Your task to perform on an android device: toggle data saver in the chrome app Image 0: 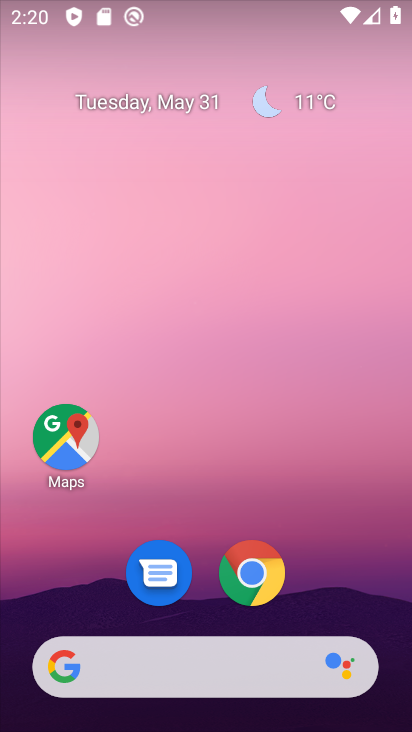
Step 0: click (251, 582)
Your task to perform on an android device: toggle data saver in the chrome app Image 1: 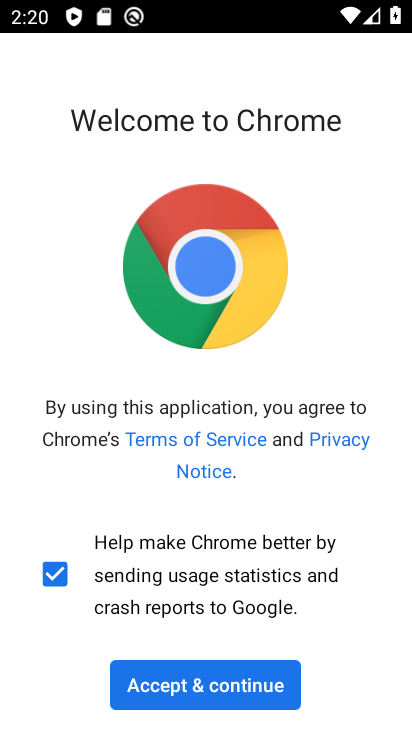
Step 1: click (253, 681)
Your task to perform on an android device: toggle data saver in the chrome app Image 2: 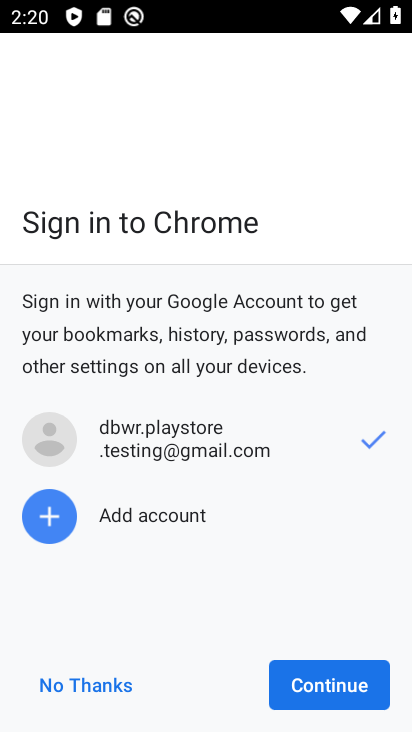
Step 2: click (297, 680)
Your task to perform on an android device: toggle data saver in the chrome app Image 3: 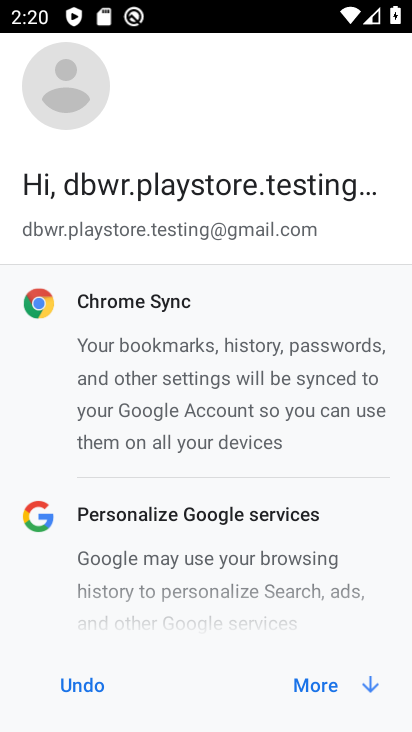
Step 3: click (297, 680)
Your task to perform on an android device: toggle data saver in the chrome app Image 4: 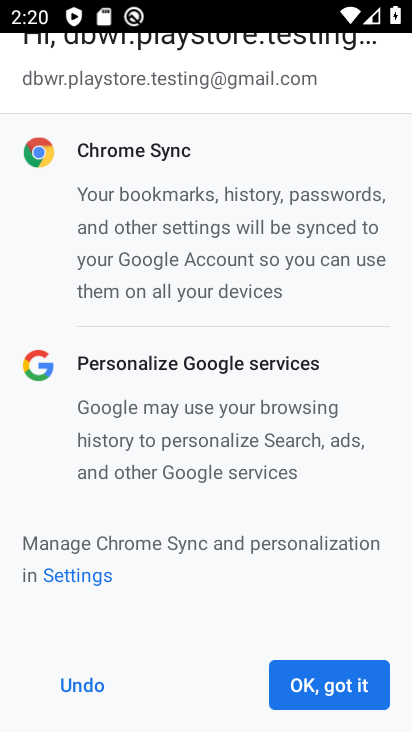
Step 4: click (297, 680)
Your task to perform on an android device: toggle data saver in the chrome app Image 5: 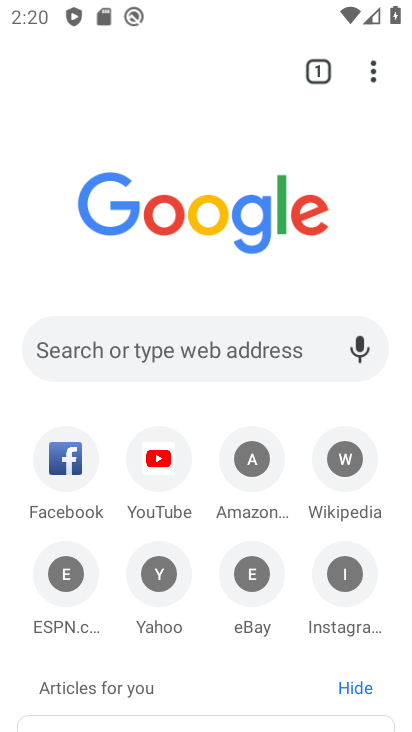
Step 5: click (377, 73)
Your task to perform on an android device: toggle data saver in the chrome app Image 6: 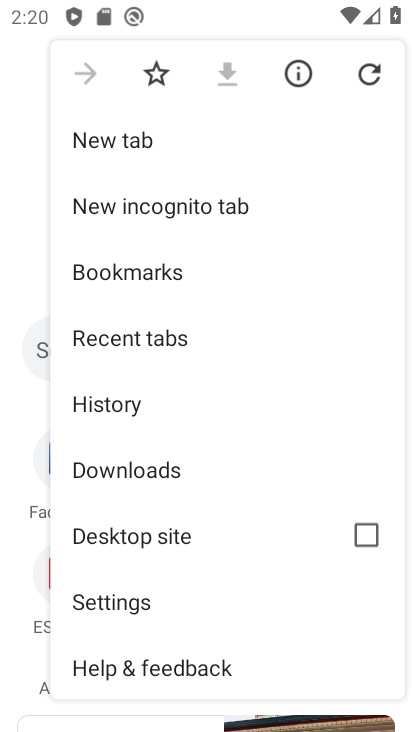
Step 6: click (166, 601)
Your task to perform on an android device: toggle data saver in the chrome app Image 7: 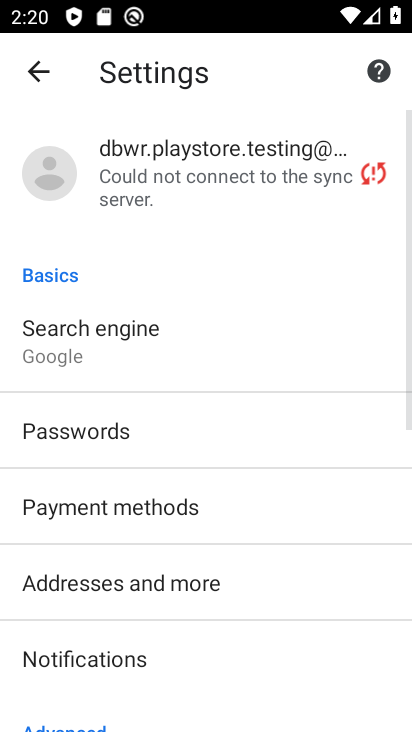
Step 7: drag from (195, 665) to (186, 101)
Your task to perform on an android device: toggle data saver in the chrome app Image 8: 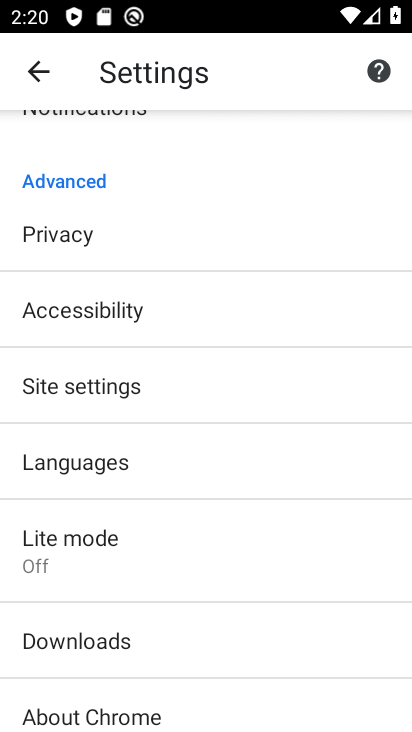
Step 8: click (167, 544)
Your task to perform on an android device: toggle data saver in the chrome app Image 9: 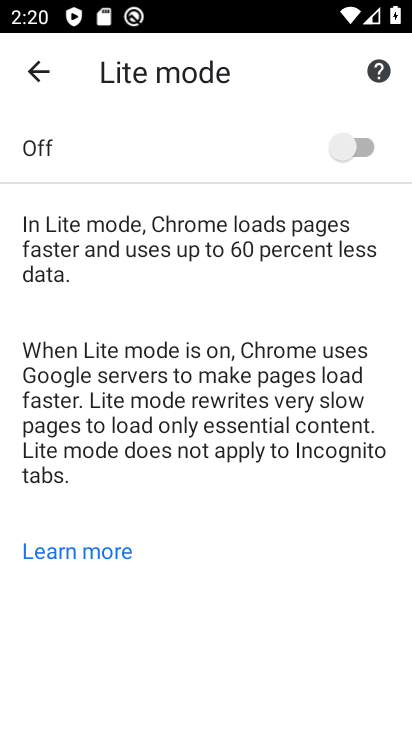
Step 9: click (359, 132)
Your task to perform on an android device: toggle data saver in the chrome app Image 10: 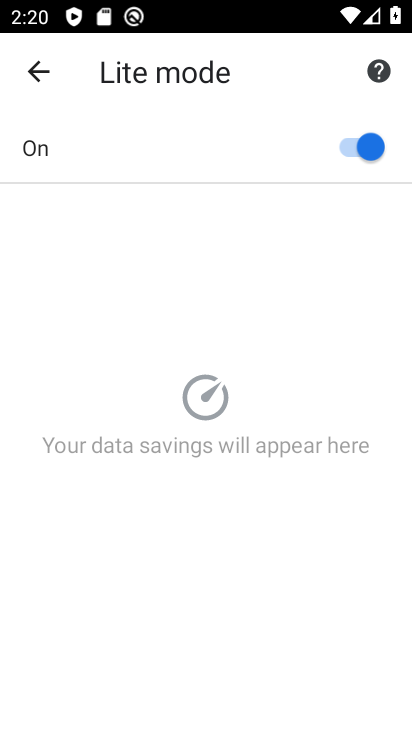
Step 10: task complete